Your task to perform on an android device: create a new album in the google photos Image 0: 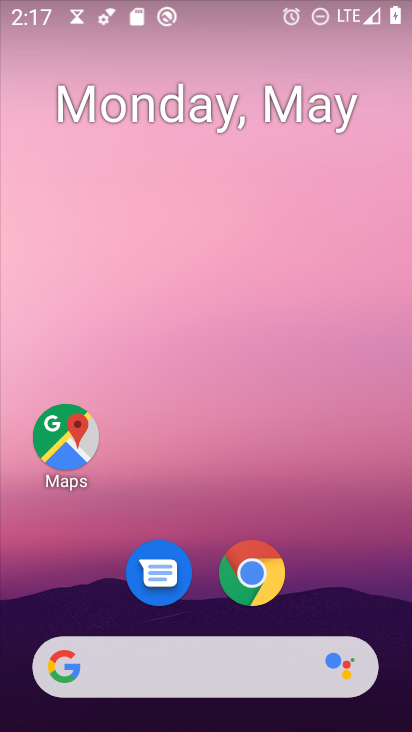
Step 0: drag from (241, 647) to (228, 91)
Your task to perform on an android device: create a new album in the google photos Image 1: 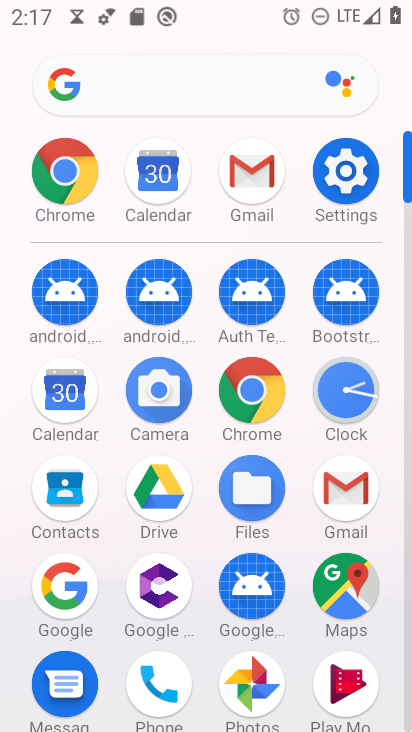
Step 1: click (242, 675)
Your task to perform on an android device: create a new album in the google photos Image 2: 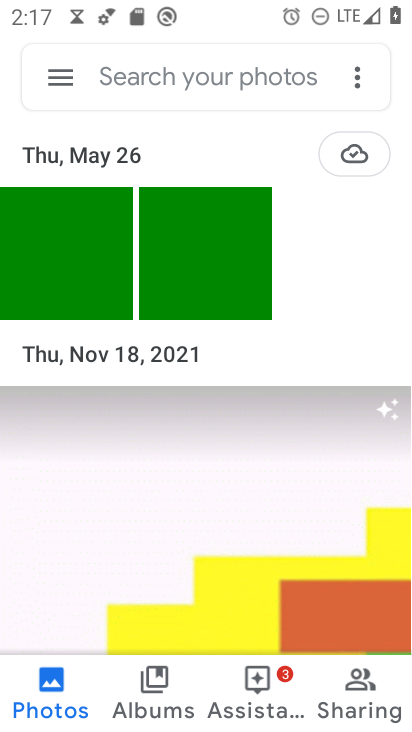
Step 2: click (158, 686)
Your task to perform on an android device: create a new album in the google photos Image 3: 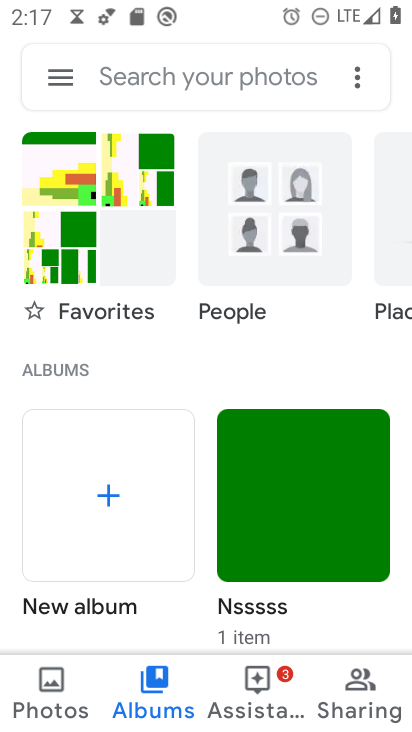
Step 3: click (98, 500)
Your task to perform on an android device: create a new album in the google photos Image 4: 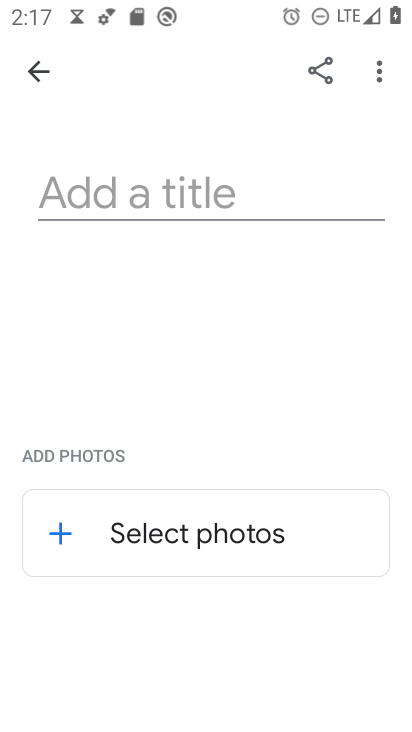
Step 4: click (188, 201)
Your task to perform on an android device: create a new album in the google photos Image 5: 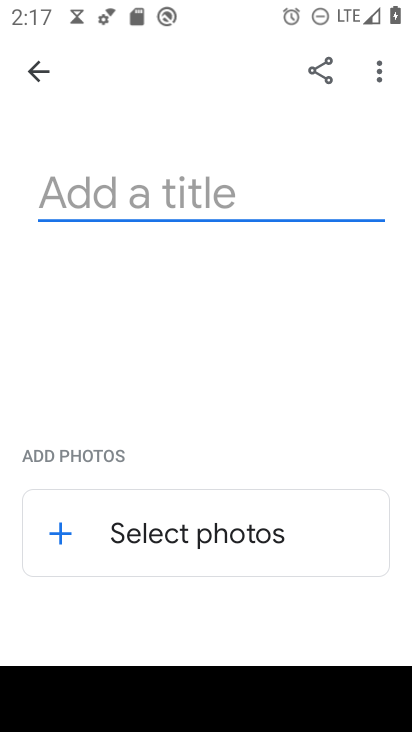
Step 5: type "ghjfhffhj"
Your task to perform on an android device: create a new album in the google photos Image 6: 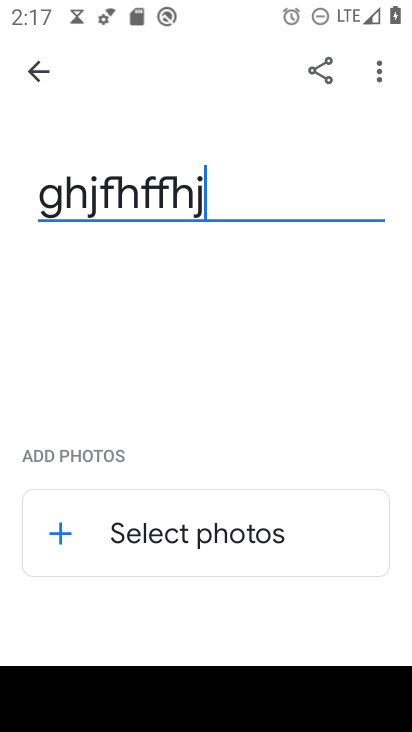
Step 6: click (49, 529)
Your task to perform on an android device: create a new album in the google photos Image 7: 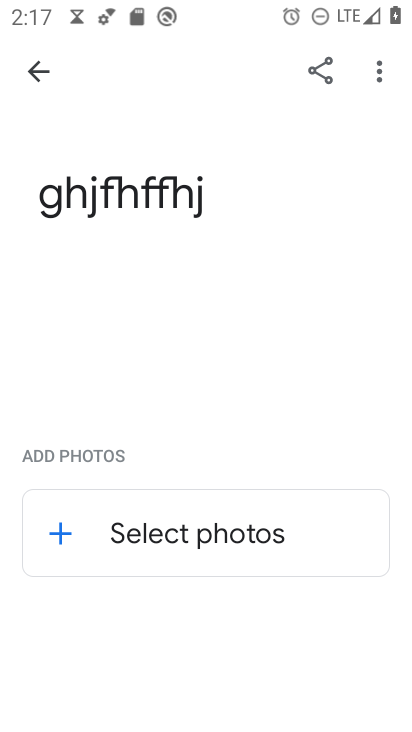
Step 7: click (58, 533)
Your task to perform on an android device: create a new album in the google photos Image 8: 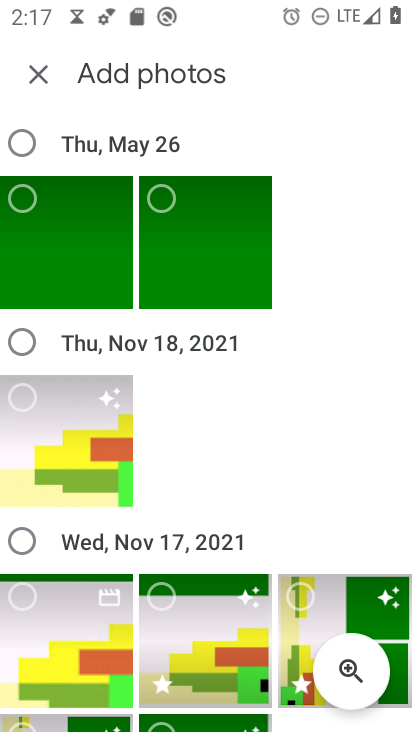
Step 8: click (81, 285)
Your task to perform on an android device: create a new album in the google photos Image 9: 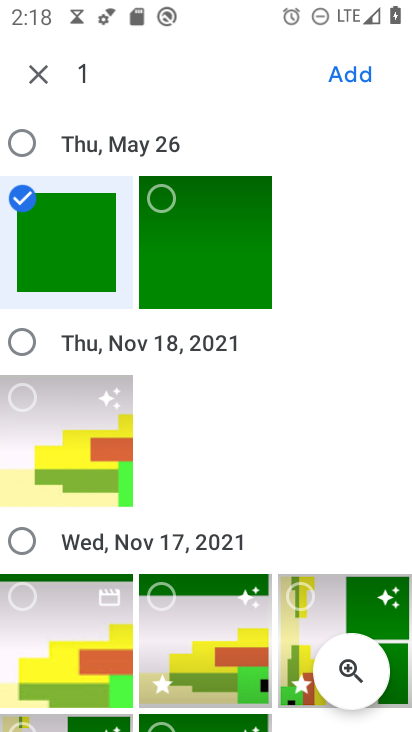
Step 9: click (343, 71)
Your task to perform on an android device: create a new album in the google photos Image 10: 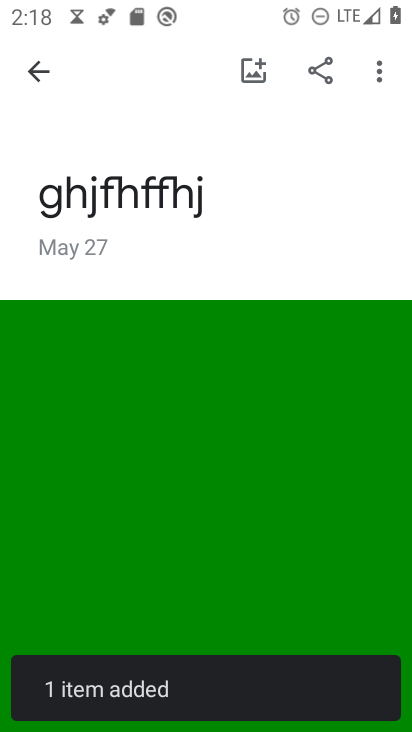
Step 10: task complete